Your task to perform on an android device: Turn on the flashlight Image 0: 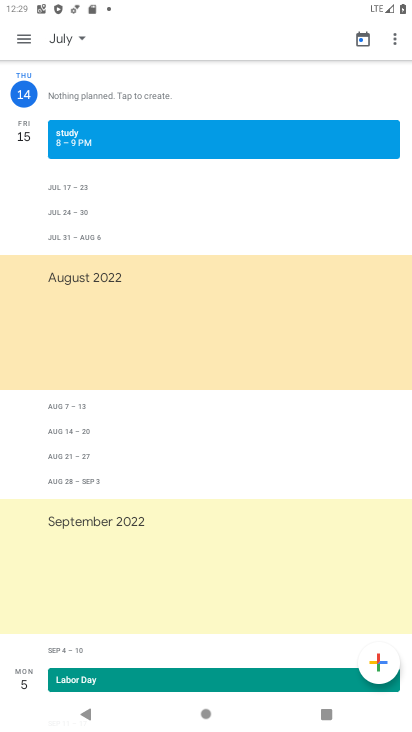
Step 0: press home button
Your task to perform on an android device: Turn on the flashlight Image 1: 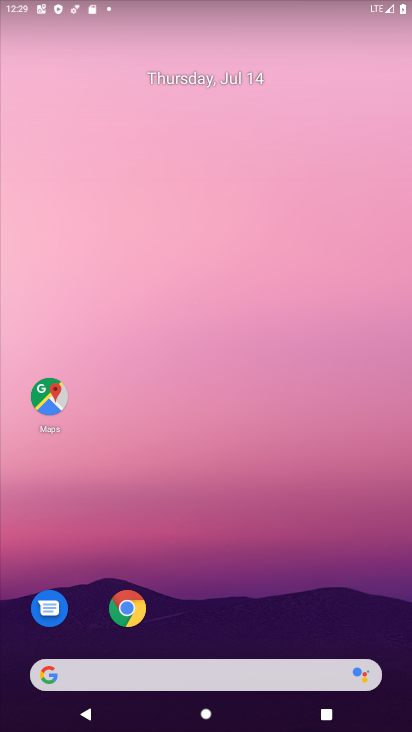
Step 1: drag from (0, 730) to (257, 97)
Your task to perform on an android device: Turn on the flashlight Image 2: 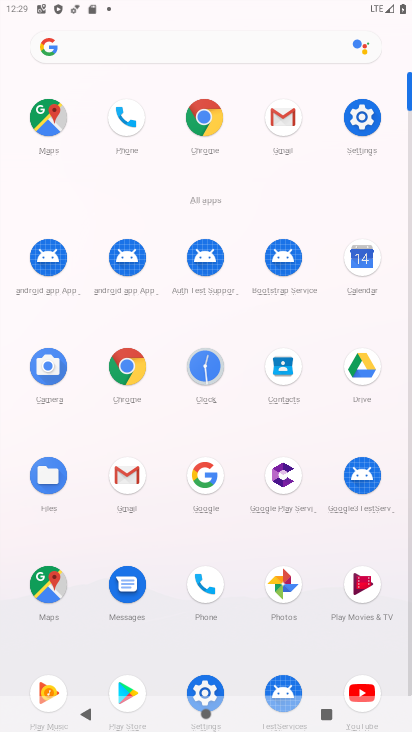
Step 2: click (375, 124)
Your task to perform on an android device: Turn on the flashlight Image 3: 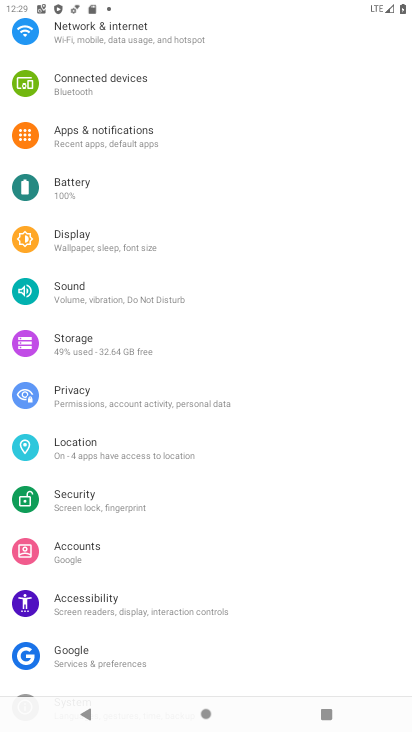
Step 3: click (378, 124)
Your task to perform on an android device: Turn on the flashlight Image 4: 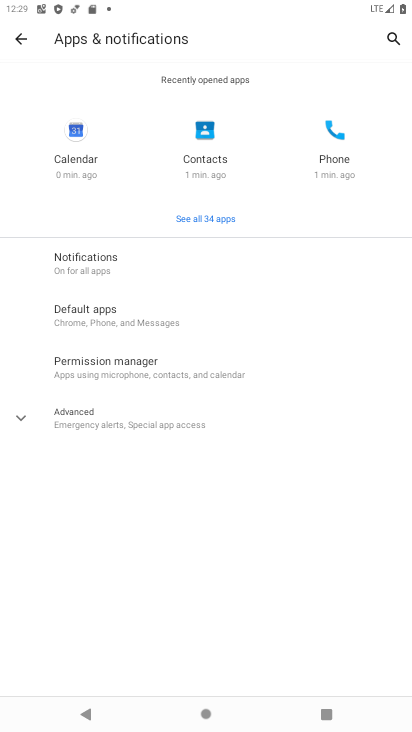
Step 4: task complete